Your task to perform on an android device: See recent photos Image 0: 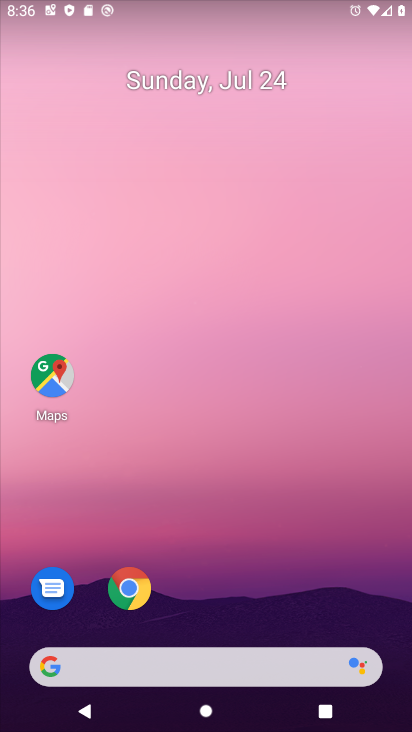
Step 0: drag from (333, 580) to (208, 10)
Your task to perform on an android device: See recent photos Image 1: 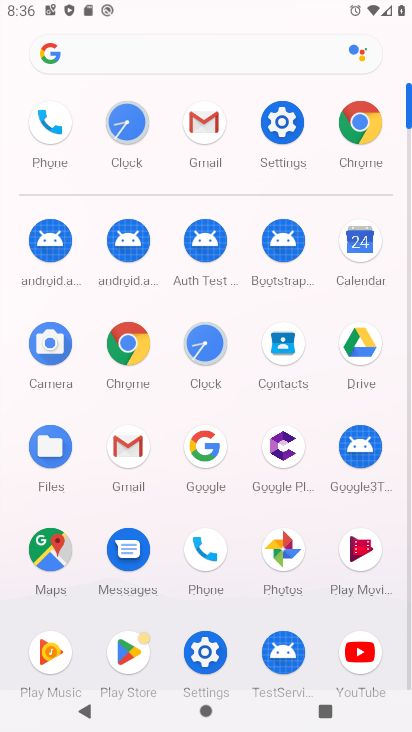
Step 1: click (271, 540)
Your task to perform on an android device: See recent photos Image 2: 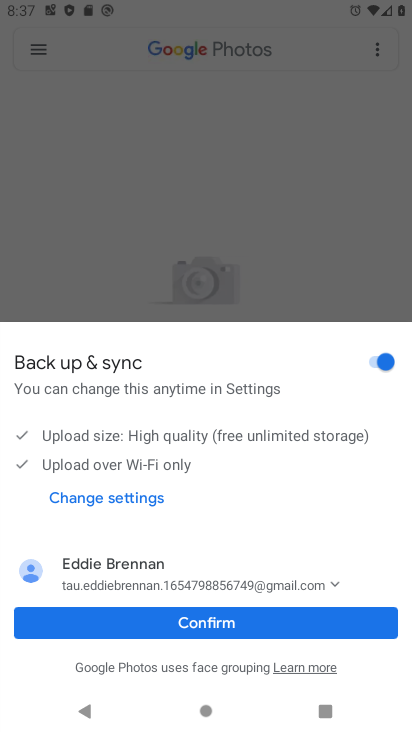
Step 2: click (219, 625)
Your task to perform on an android device: See recent photos Image 3: 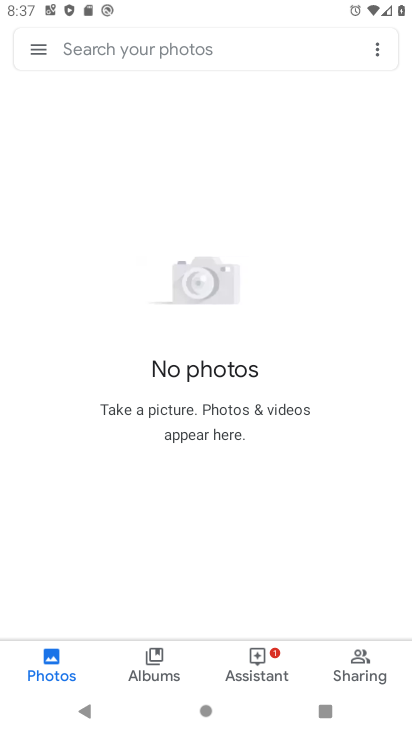
Step 3: task complete